Your task to perform on an android device: change the clock style Image 0: 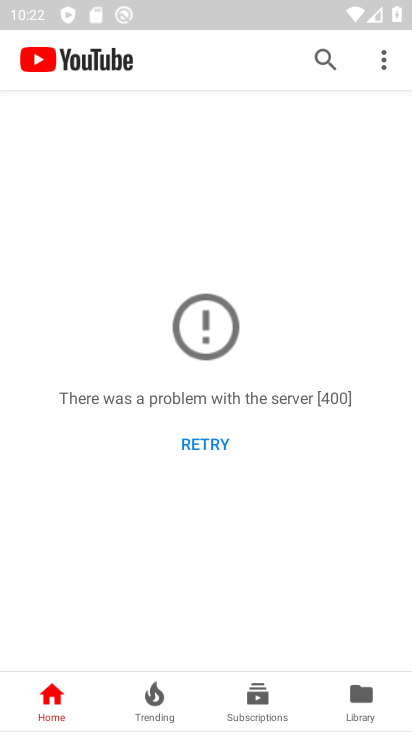
Step 0: press home button
Your task to perform on an android device: change the clock style Image 1: 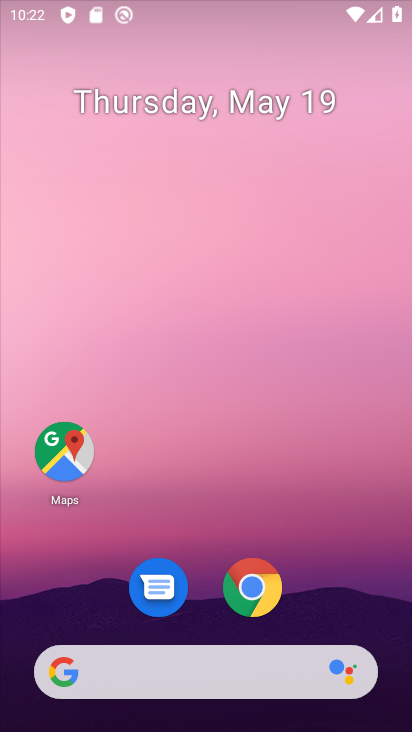
Step 1: drag from (376, 596) to (347, 202)
Your task to perform on an android device: change the clock style Image 2: 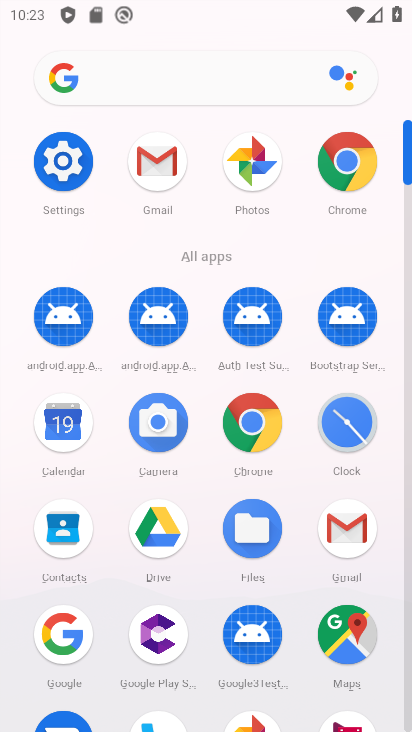
Step 2: click (341, 430)
Your task to perform on an android device: change the clock style Image 3: 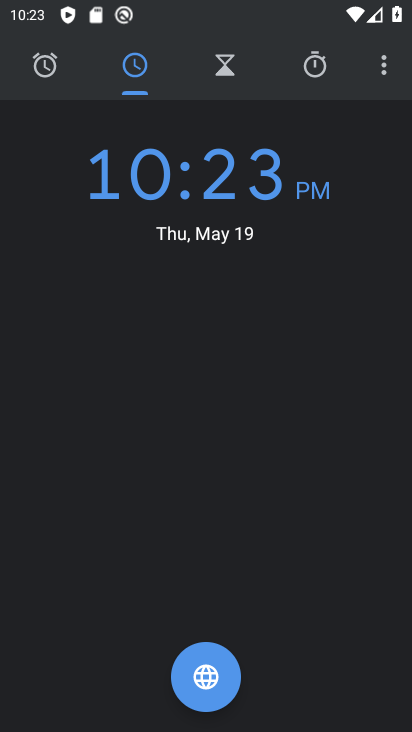
Step 3: click (378, 51)
Your task to perform on an android device: change the clock style Image 4: 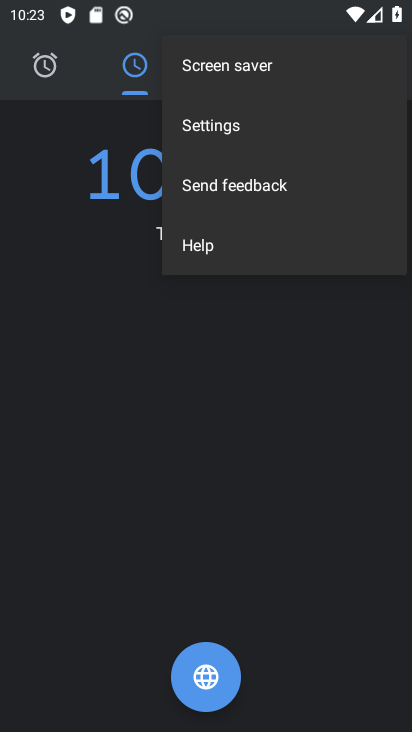
Step 4: click (253, 126)
Your task to perform on an android device: change the clock style Image 5: 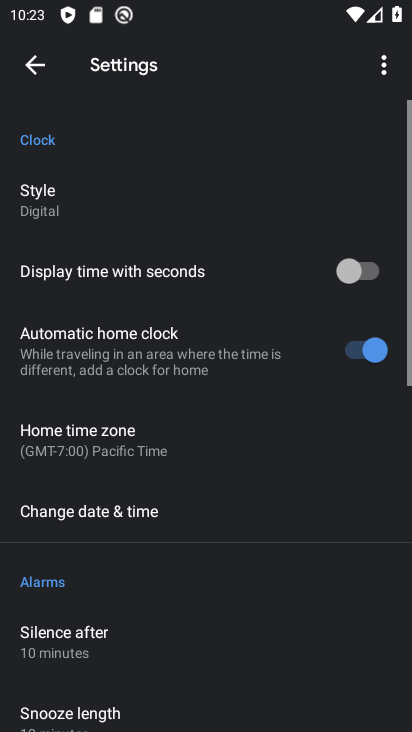
Step 5: click (65, 192)
Your task to perform on an android device: change the clock style Image 6: 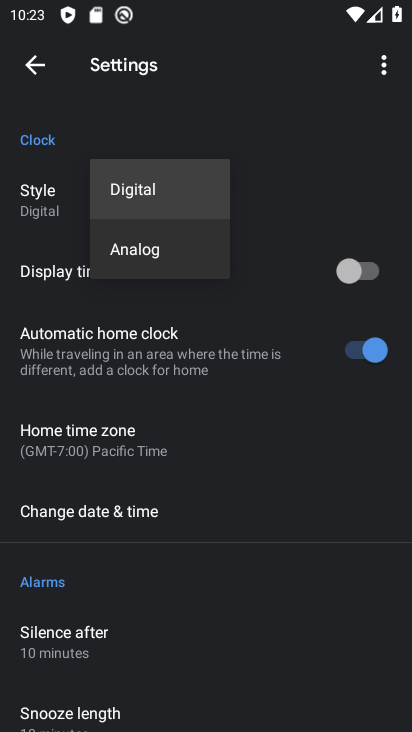
Step 6: click (116, 257)
Your task to perform on an android device: change the clock style Image 7: 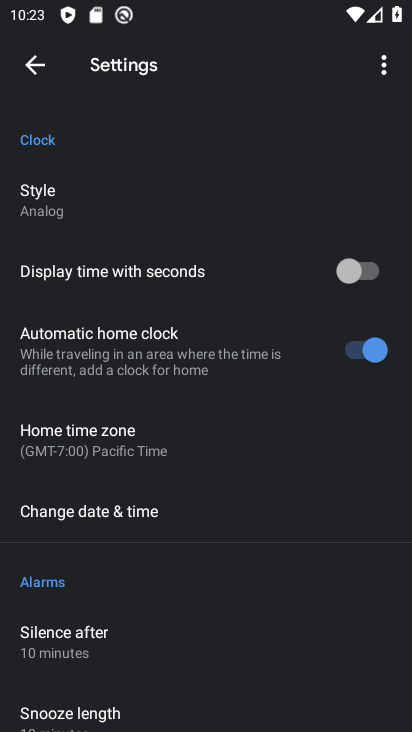
Step 7: task complete